Your task to perform on an android device: clear history in the chrome app Image 0: 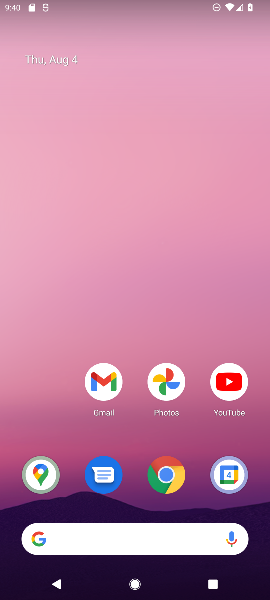
Step 0: drag from (135, 444) to (105, 225)
Your task to perform on an android device: clear history in the chrome app Image 1: 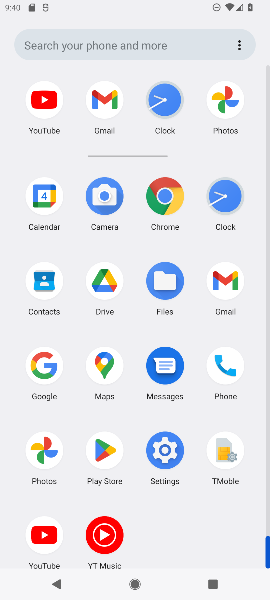
Step 1: click (160, 200)
Your task to perform on an android device: clear history in the chrome app Image 2: 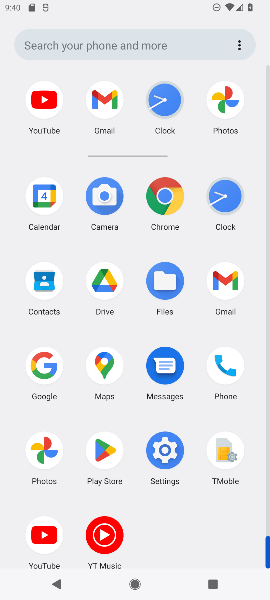
Step 2: click (161, 199)
Your task to perform on an android device: clear history in the chrome app Image 3: 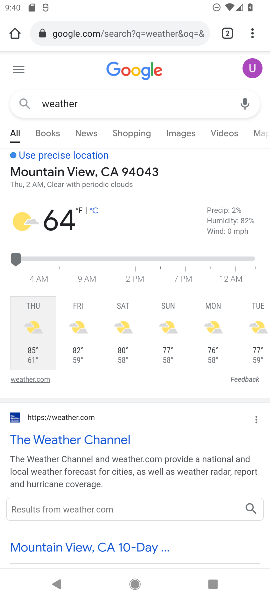
Step 3: drag from (254, 32) to (166, 170)
Your task to perform on an android device: clear history in the chrome app Image 4: 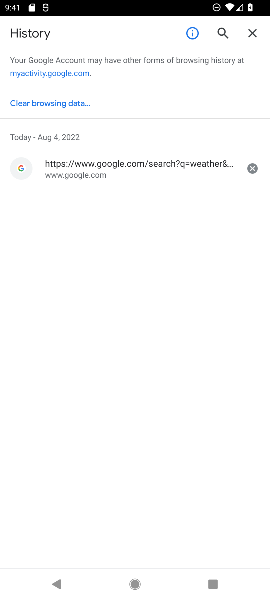
Step 4: click (31, 103)
Your task to perform on an android device: clear history in the chrome app Image 5: 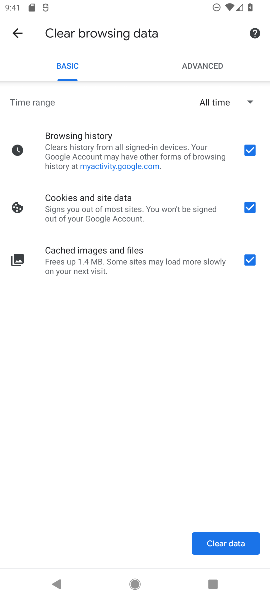
Step 5: click (238, 548)
Your task to perform on an android device: clear history in the chrome app Image 6: 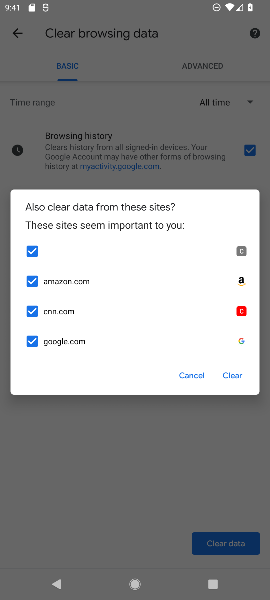
Step 6: click (236, 377)
Your task to perform on an android device: clear history in the chrome app Image 7: 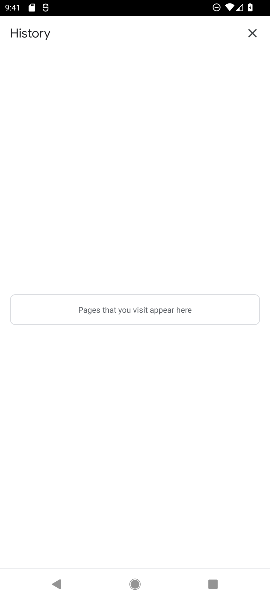
Step 7: drag from (171, 246) to (157, 430)
Your task to perform on an android device: clear history in the chrome app Image 8: 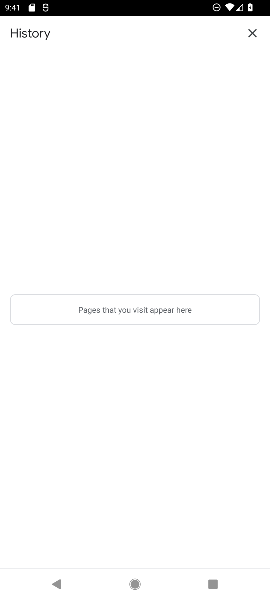
Step 8: drag from (198, 194) to (51, 20)
Your task to perform on an android device: clear history in the chrome app Image 9: 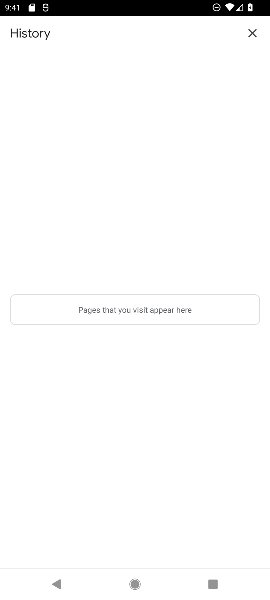
Step 9: drag from (154, 379) to (132, 269)
Your task to perform on an android device: clear history in the chrome app Image 10: 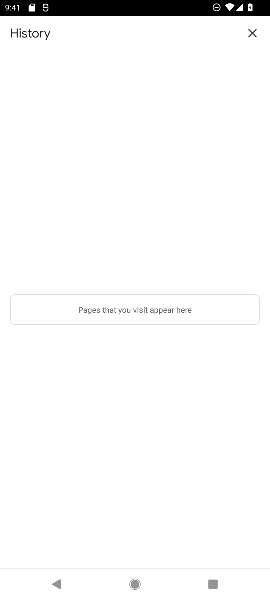
Step 10: drag from (190, 324) to (176, 283)
Your task to perform on an android device: clear history in the chrome app Image 11: 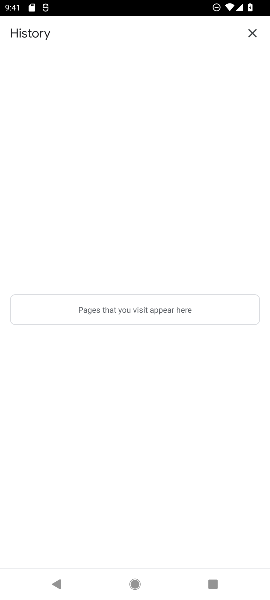
Step 11: click (154, 315)
Your task to perform on an android device: clear history in the chrome app Image 12: 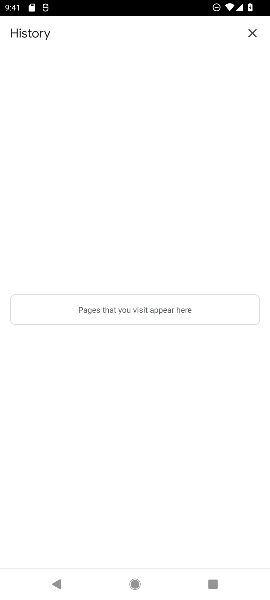
Step 12: click (133, 305)
Your task to perform on an android device: clear history in the chrome app Image 13: 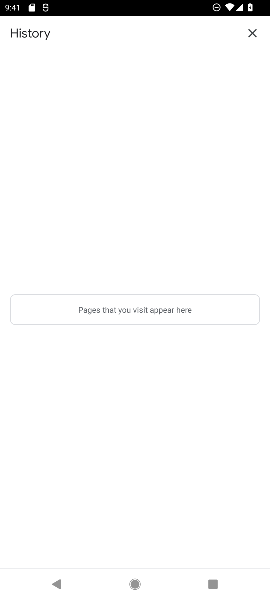
Step 13: task complete